Your task to perform on an android device: clear all cookies in the chrome app Image 0: 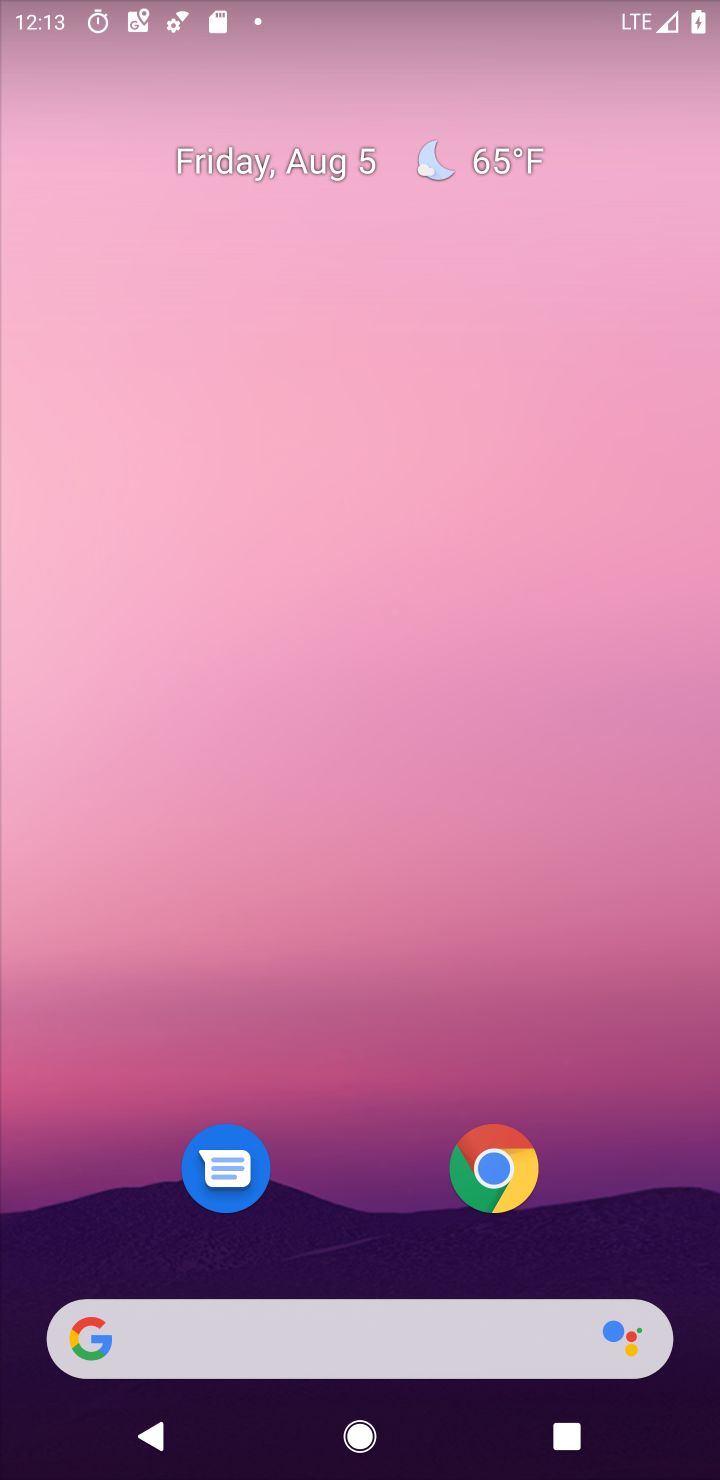
Step 0: drag from (378, 1001) to (523, 3)
Your task to perform on an android device: clear all cookies in the chrome app Image 1: 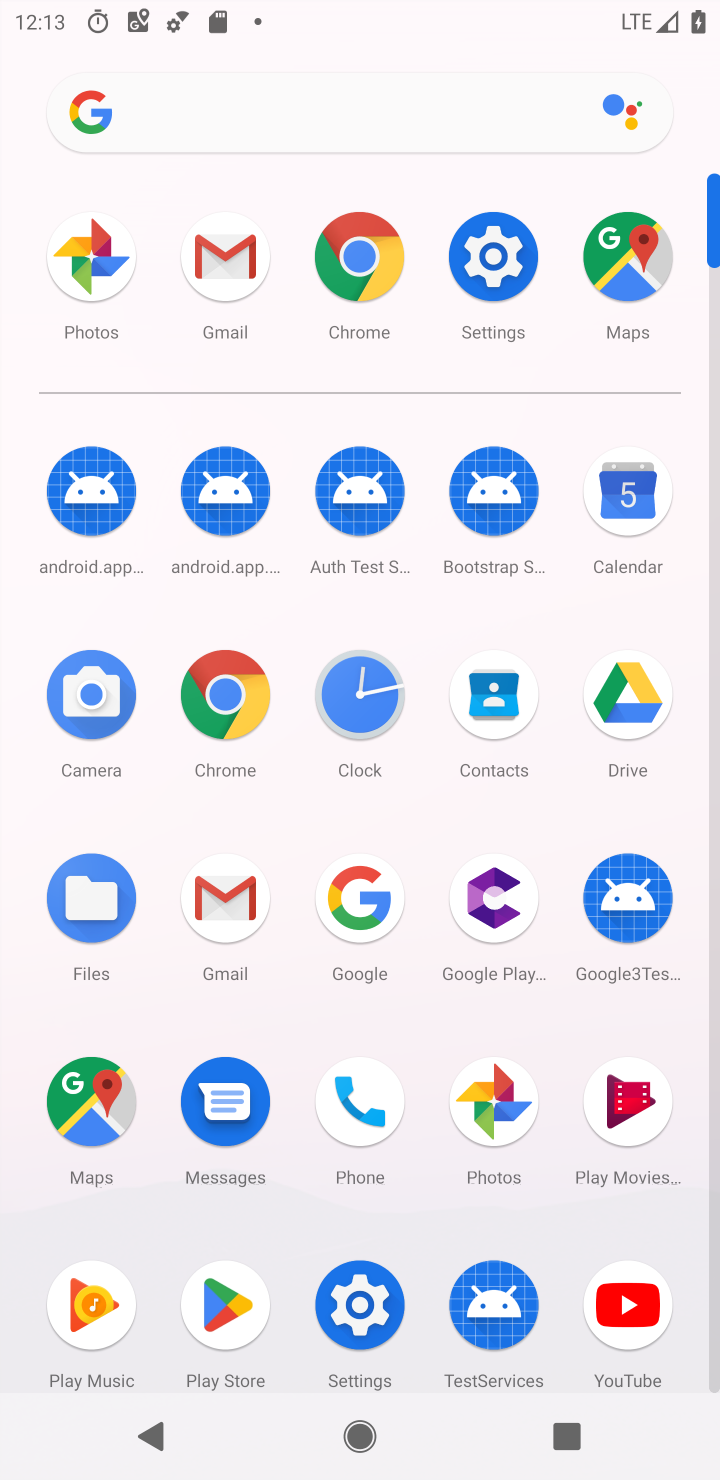
Step 1: click (224, 720)
Your task to perform on an android device: clear all cookies in the chrome app Image 2: 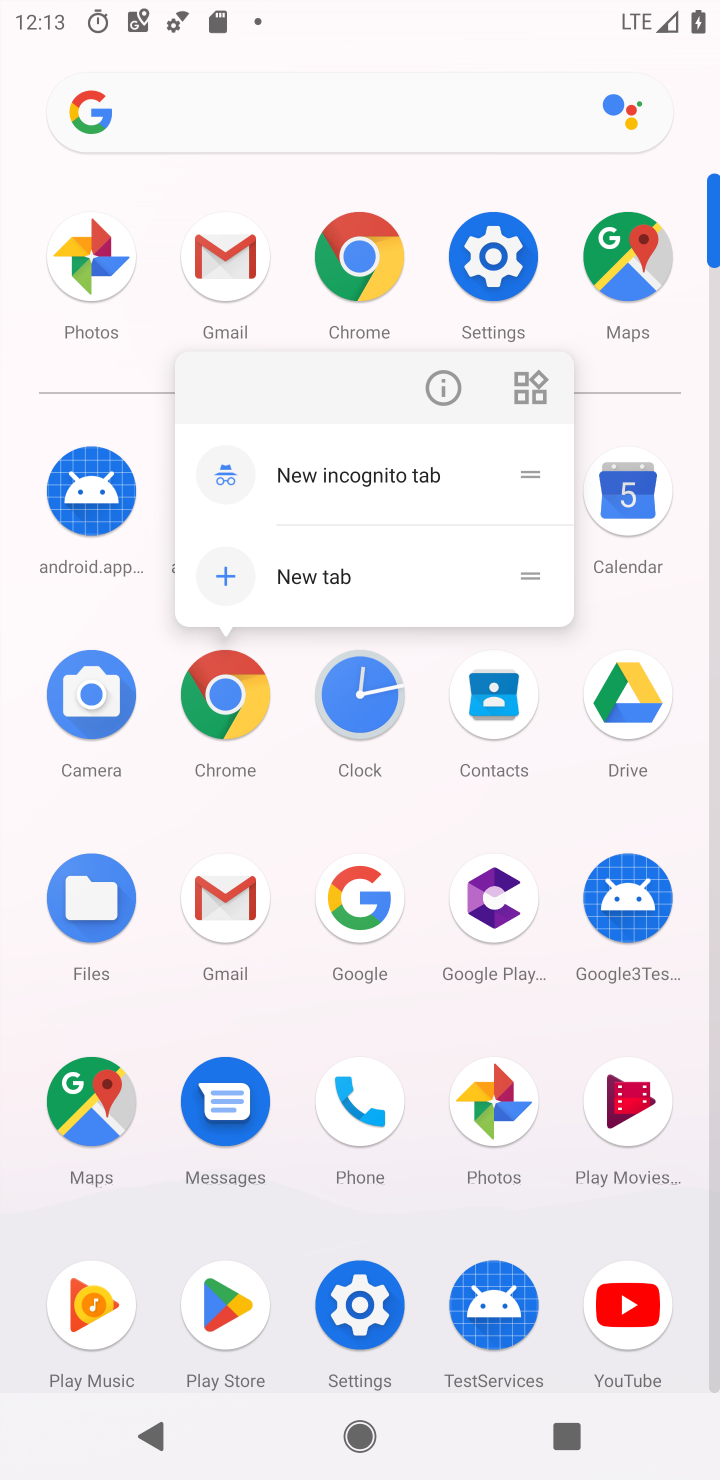
Step 2: click (248, 722)
Your task to perform on an android device: clear all cookies in the chrome app Image 3: 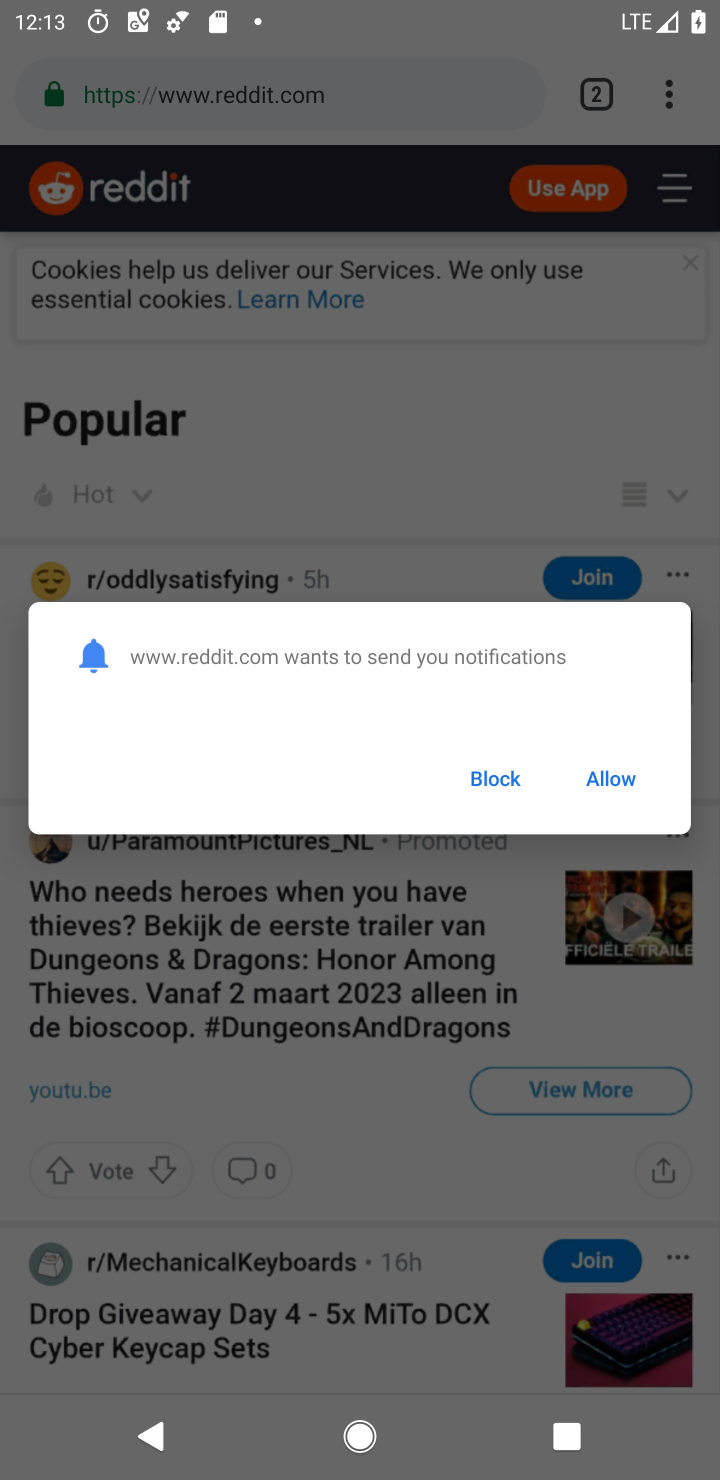
Step 3: click (618, 780)
Your task to perform on an android device: clear all cookies in the chrome app Image 4: 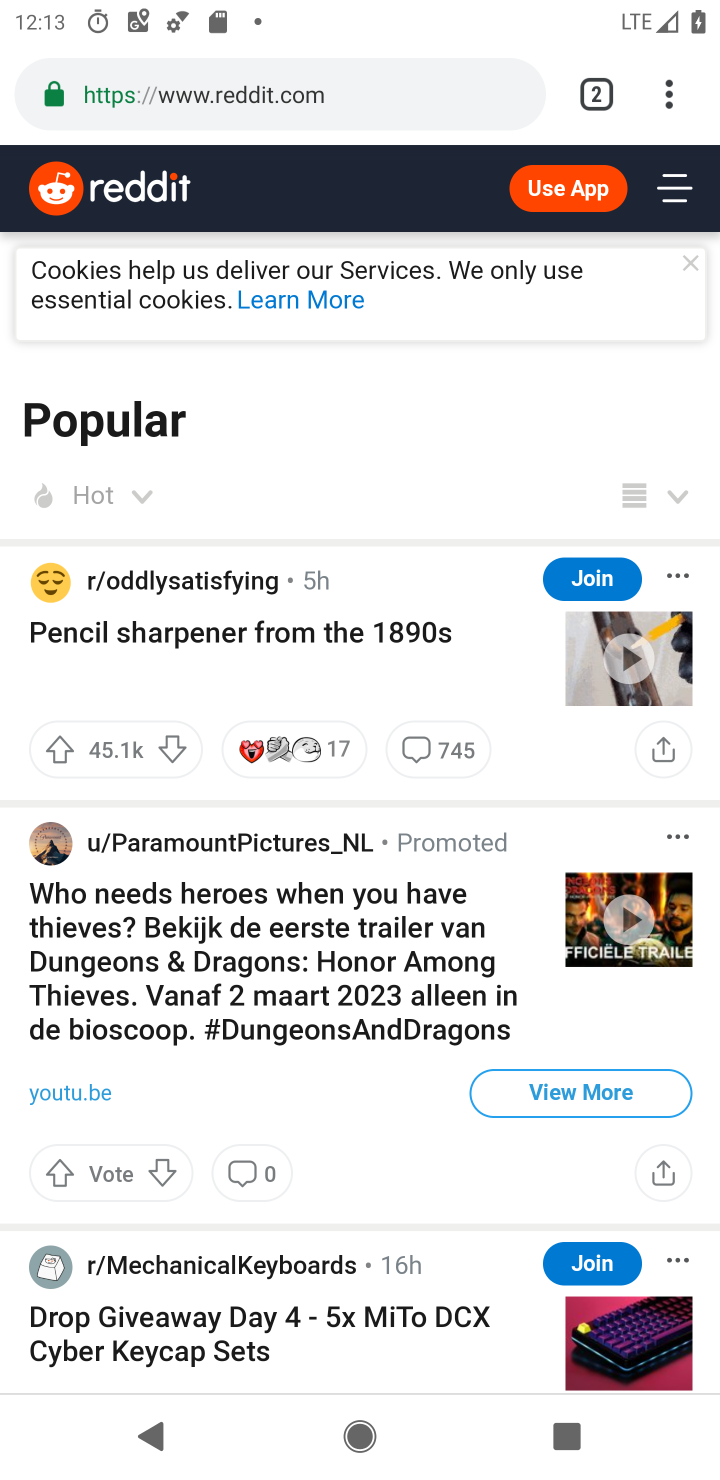
Step 4: click (667, 78)
Your task to perform on an android device: clear all cookies in the chrome app Image 5: 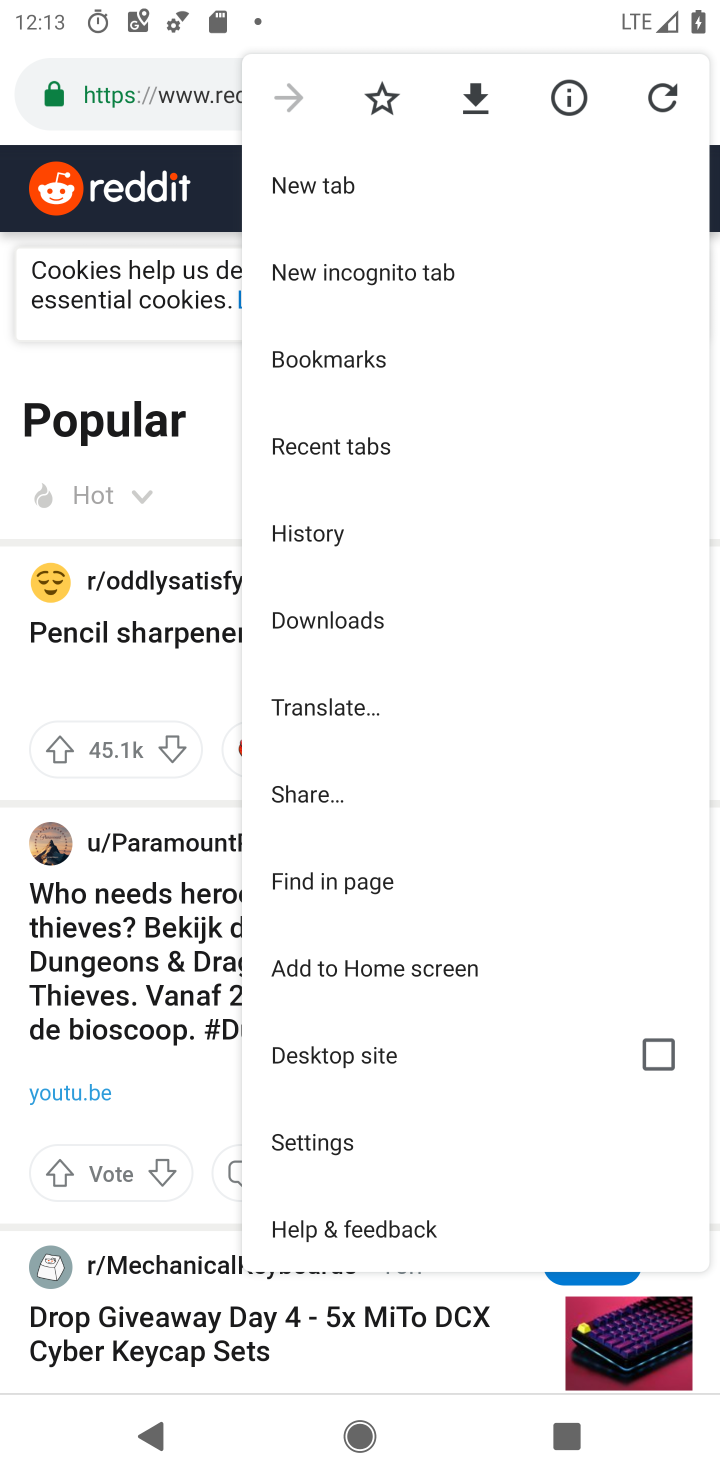
Step 5: click (305, 532)
Your task to perform on an android device: clear all cookies in the chrome app Image 6: 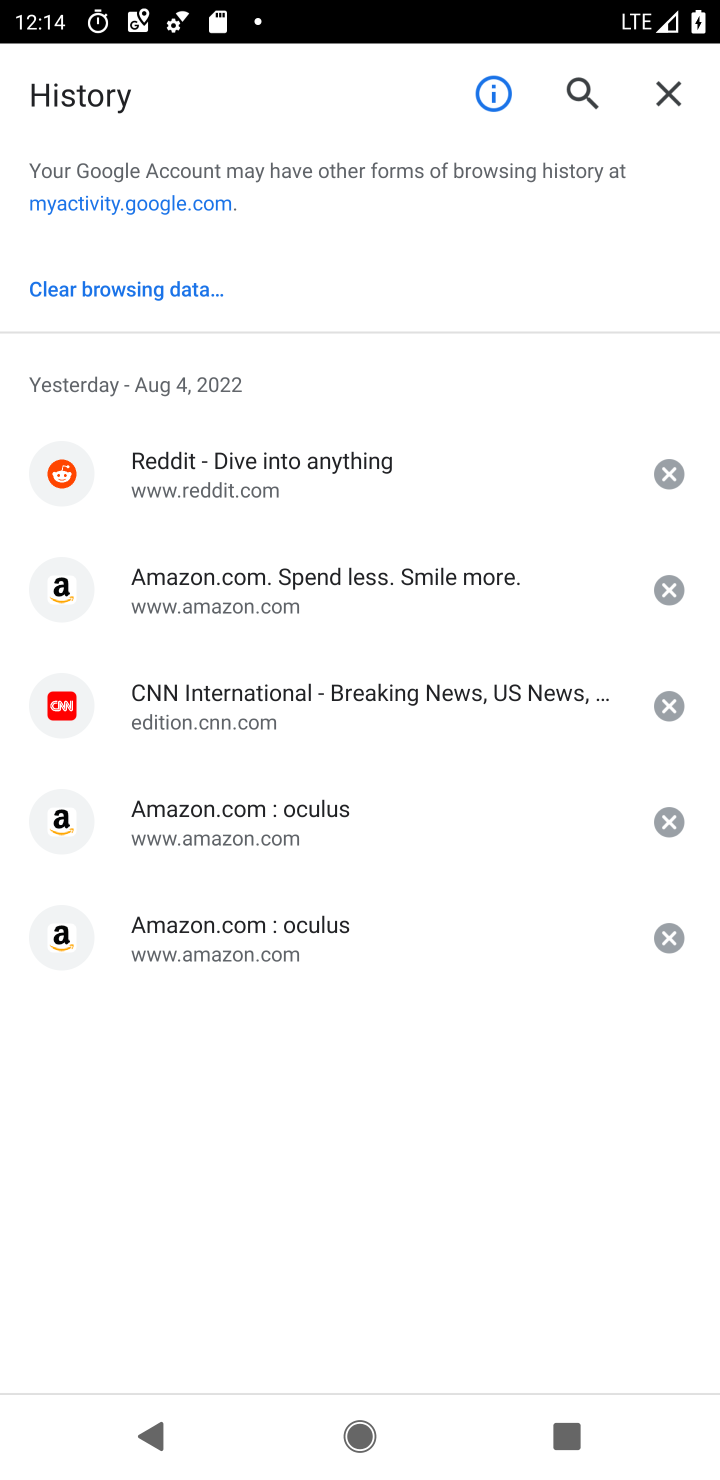
Step 6: click (154, 289)
Your task to perform on an android device: clear all cookies in the chrome app Image 7: 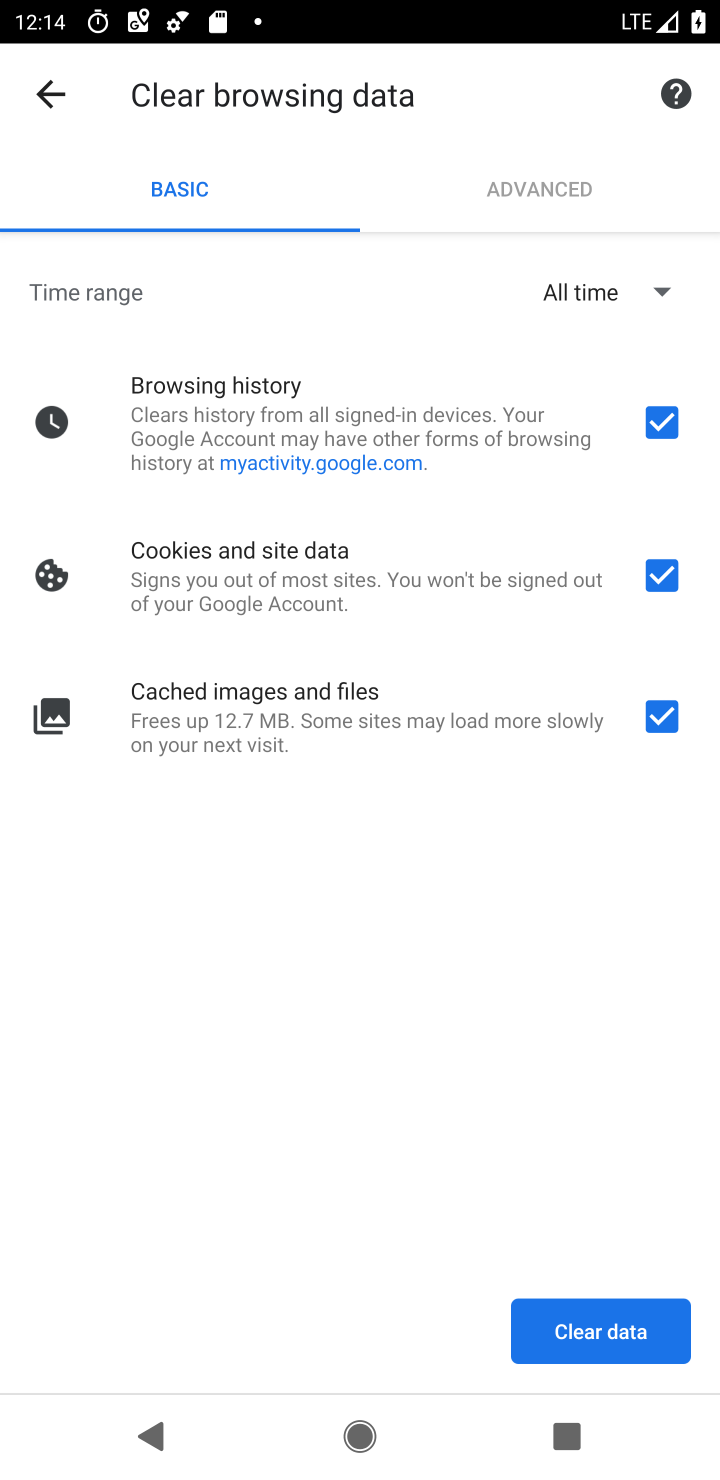
Step 7: click (629, 439)
Your task to perform on an android device: clear all cookies in the chrome app Image 8: 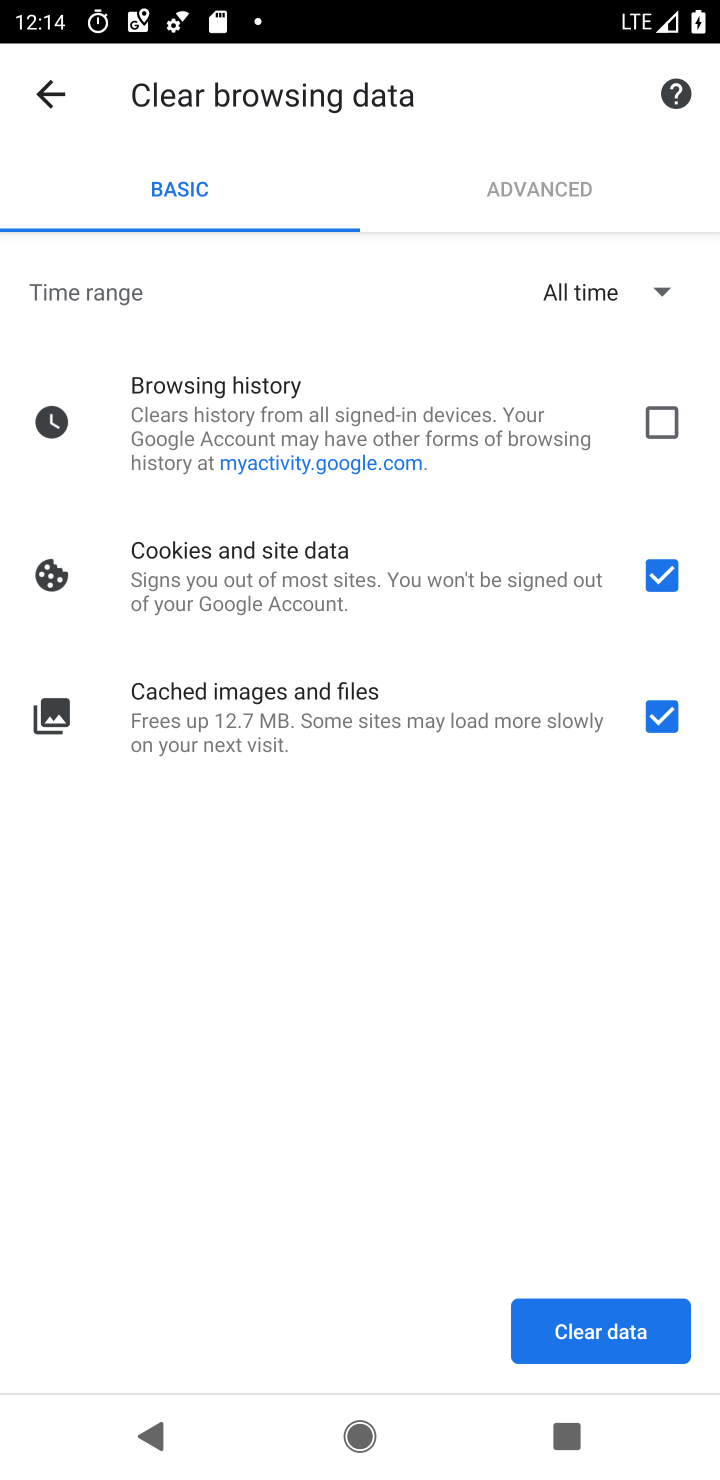
Step 8: click (627, 703)
Your task to perform on an android device: clear all cookies in the chrome app Image 9: 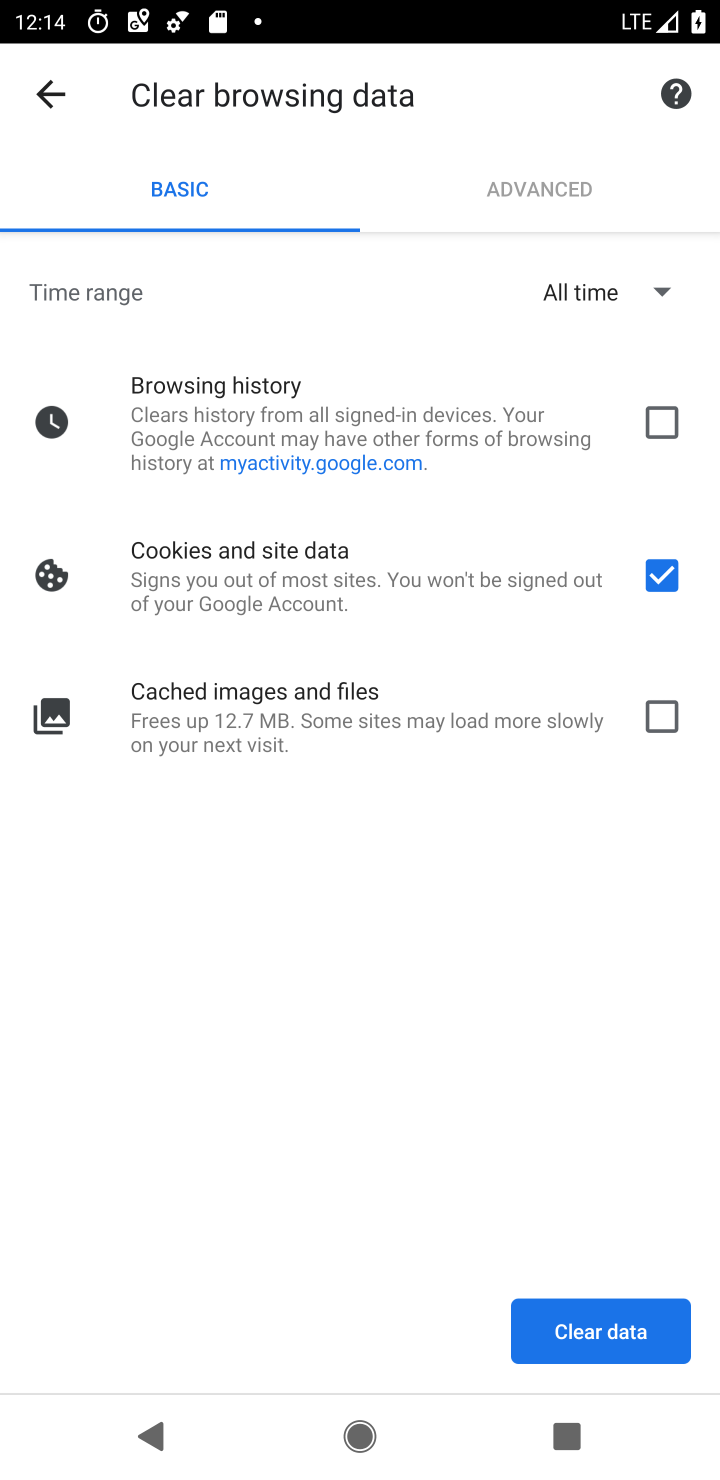
Step 9: click (622, 1333)
Your task to perform on an android device: clear all cookies in the chrome app Image 10: 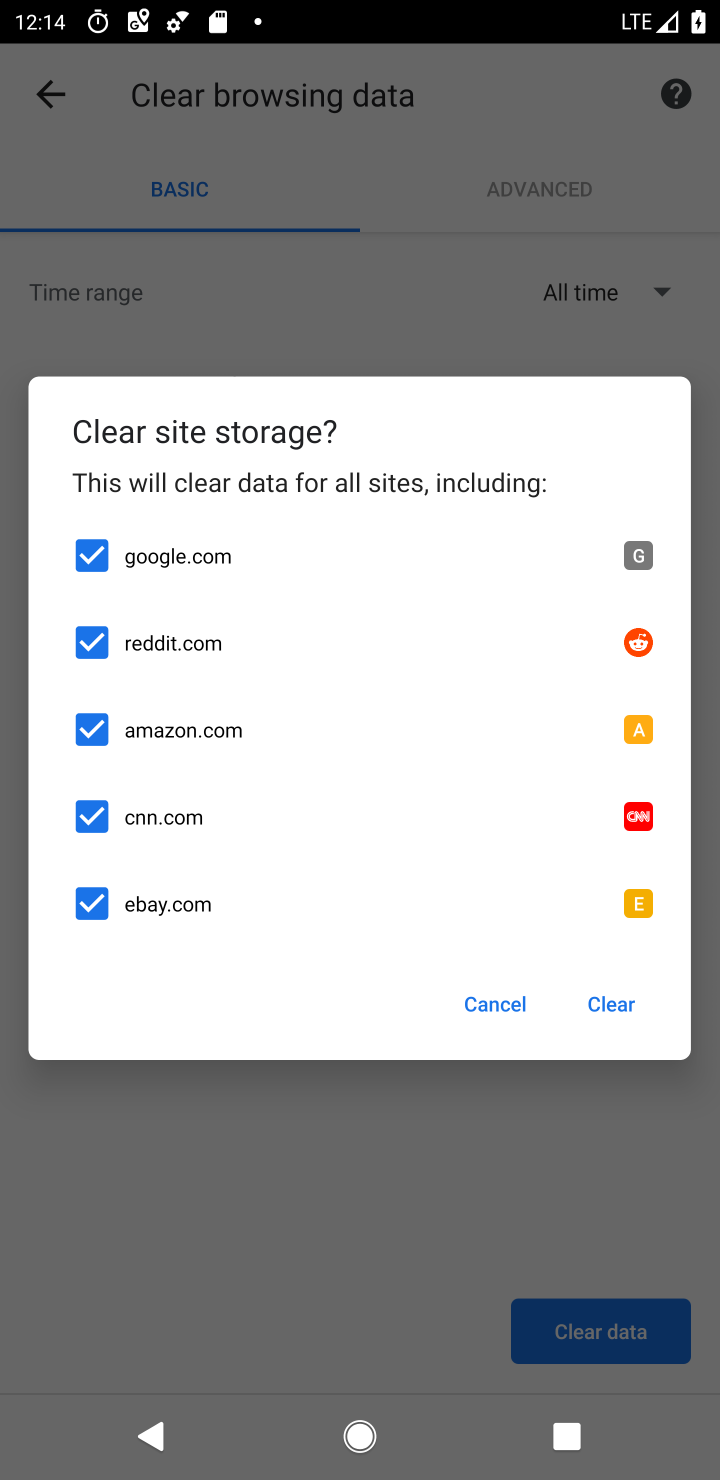
Step 10: click (613, 999)
Your task to perform on an android device: clear all cookies in the chrome app Image 11: 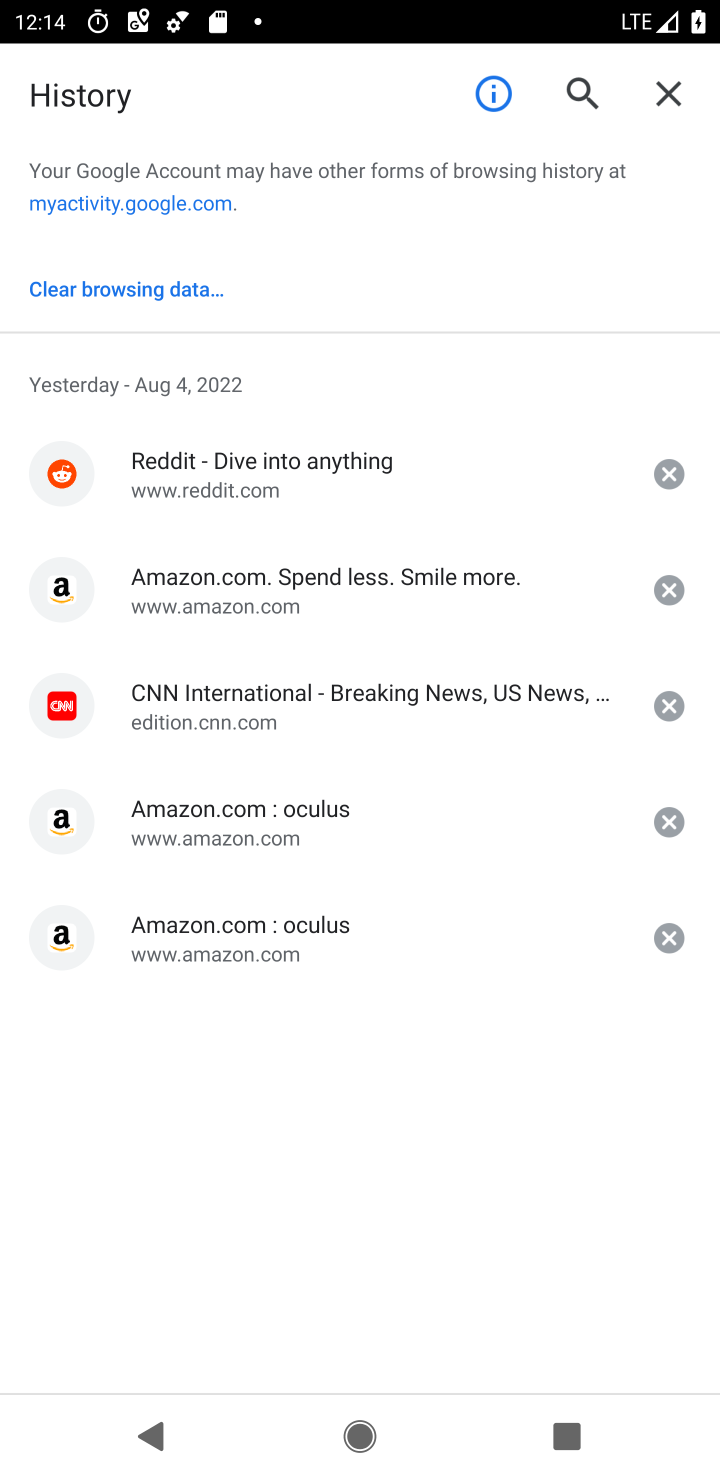
Step 11: task complete